Your task to perform on an android device: make emails show in primary in the gmail app Image 0: 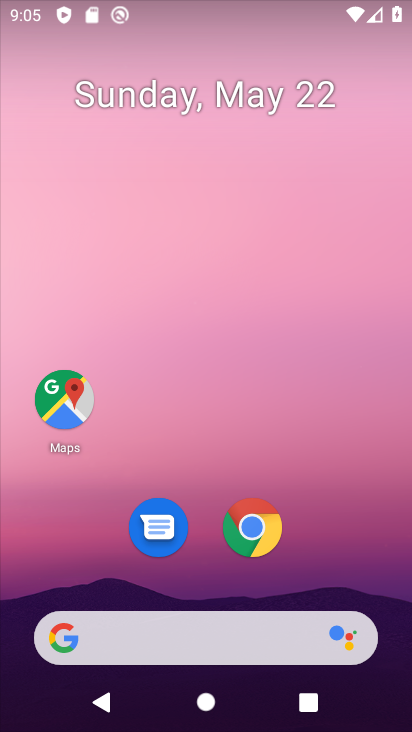
Step 0: drag from (357, 575) to (337, 174)
Your task to perform on an android device: make emails show in primary in the gmail app Image 1: 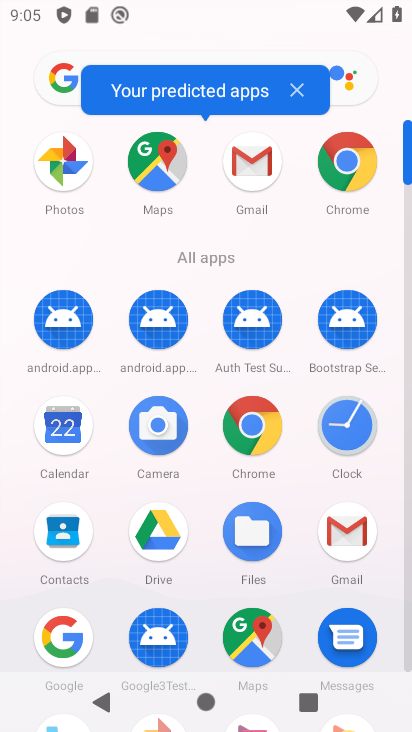
Step 1: click (263, 187)
Your task to perform on an android device: make emails show in primary in the gmail app Image 2: 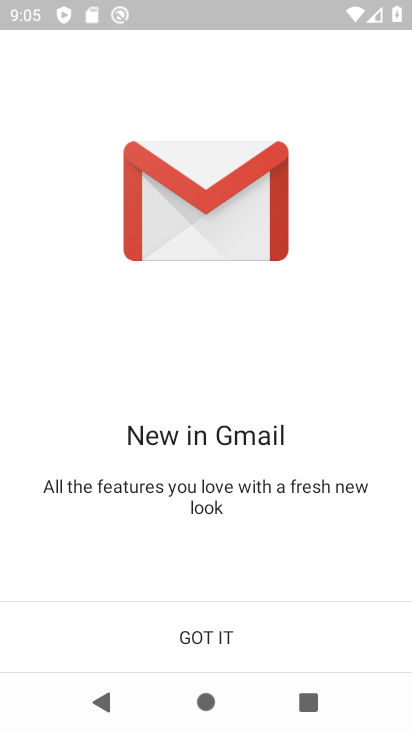
Step 2: click (282, 643)
Your task to perform on an android device: make emails show in primary in the gmail app Image 3: 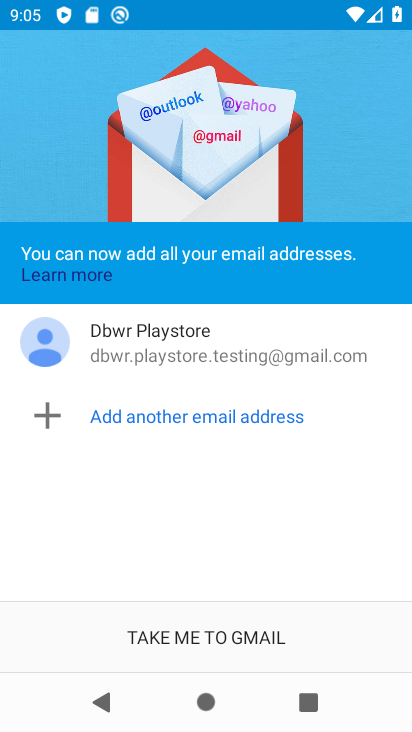
Step 3: click (282, 643)
Your task to perform on an android device: make emails show in primary in the gmail app Image 4: 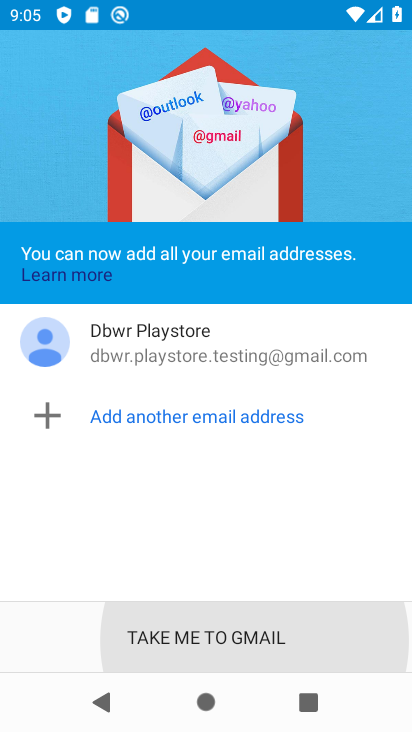
Step 4: click (282, 643)
Your task to perform on an android device: make emails show in primary in the gmail app Image 5: 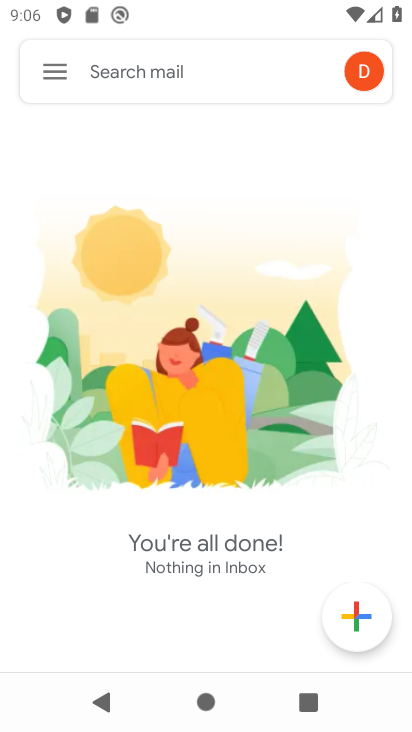
Step 5: click (62, 75)
Your task to perform on an android device: make emails show in primary in the gmail app Image 6: 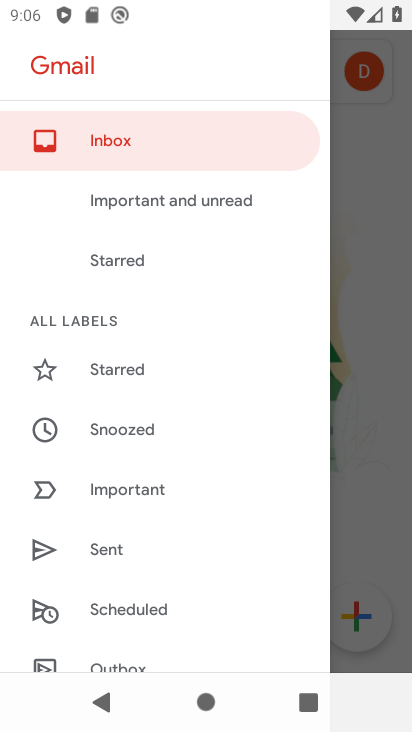
Step 6: drag from (109, 585) to (107, 237)
Your task to perform on an android device: make emails show in primary in the gmail app Image 7: 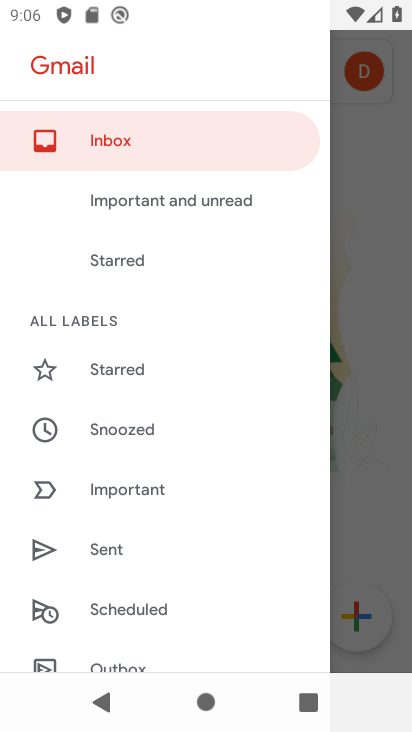
Step 7: drag from (138, 653) to (146, 143)
Your task to perform on an android device: make emails show in primary in the gmail app Image 8: 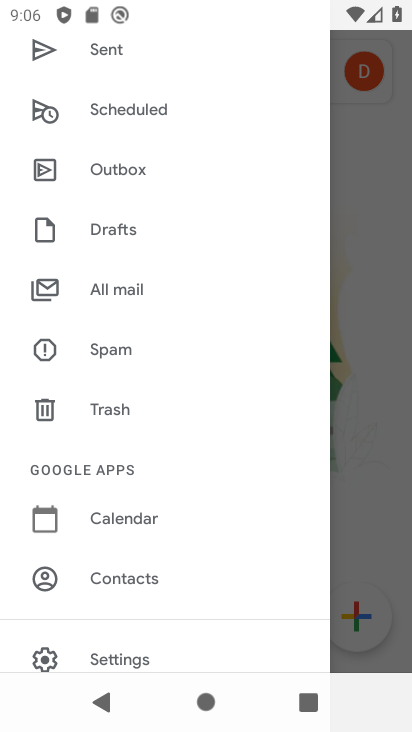
Step 8: click (154, 664)
Your task to perform on an android device: make emails show in primary in the gmail app Image 9: 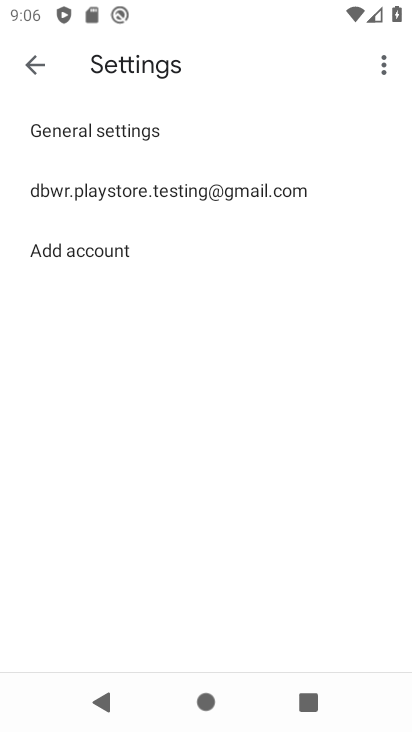
Step 9: click (128, 196)
Your task to perform on an android device: make emails show in primary in the gmail app Image 10: 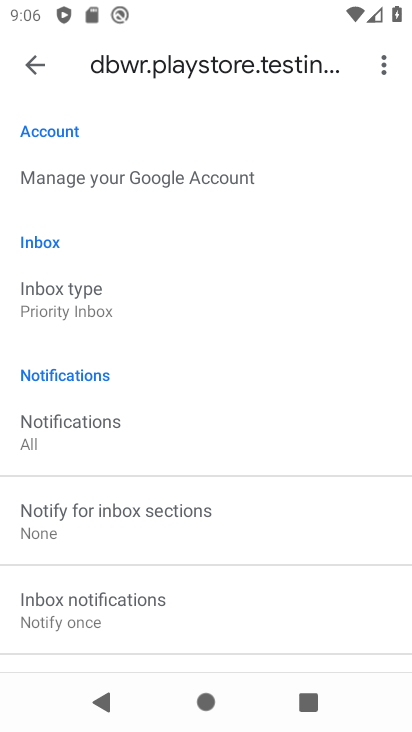
Step 10: drag from (171, 589) to (154, 357)
Your task to perform on an android device: make emails show in primary in the gmail app Image 11: 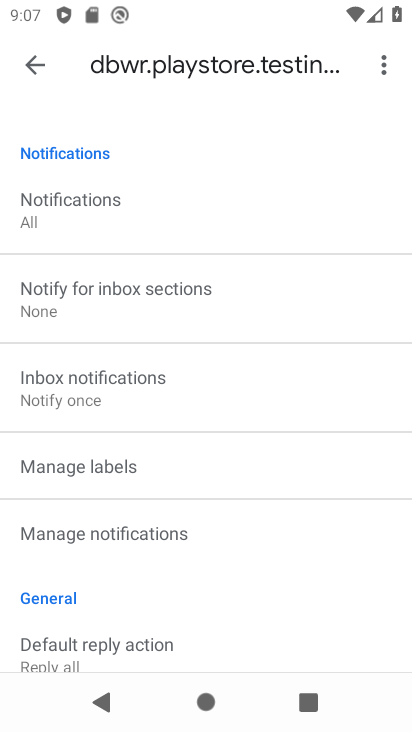
Step 11: click (129, 340)
Your task to perform on an android device: make emails show in primary in the gmail app Image 12: 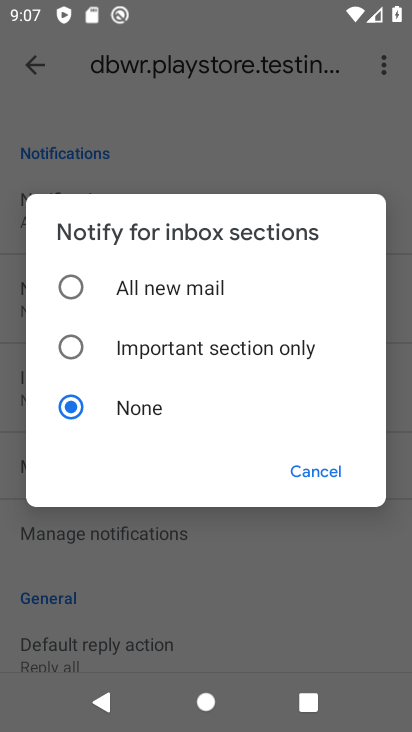
Step 12: click (178, 353)
Your task to perform on an android device: make emails show in primary in the gmail app Image 13: 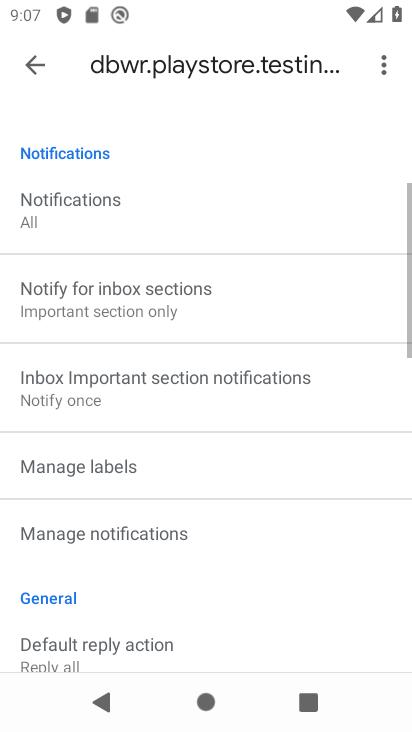
Step 13: task complete